Your task to perform on an android device: Is it going to rain today? Image 0: 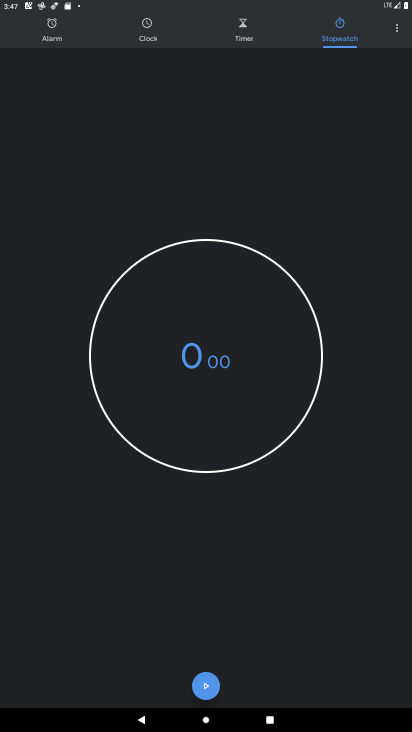
Step 0: press home button
Your task to perform on an android device: Is it going to rain today? Image 1: 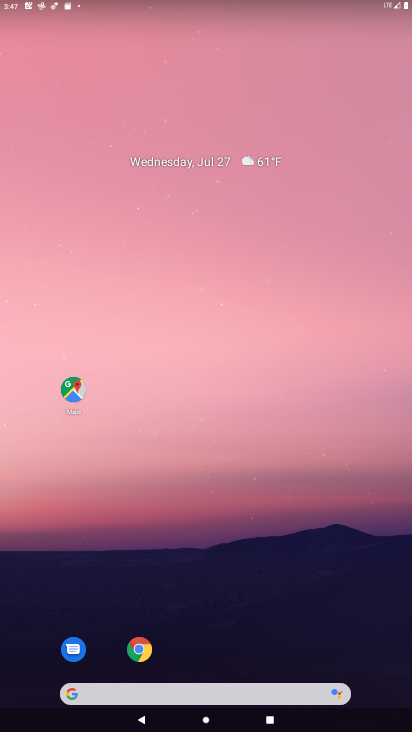
Step 1: drag from (200, 641) to (129, 80)
Your task to perform on an android device: Is it going to rain today? Image 2: 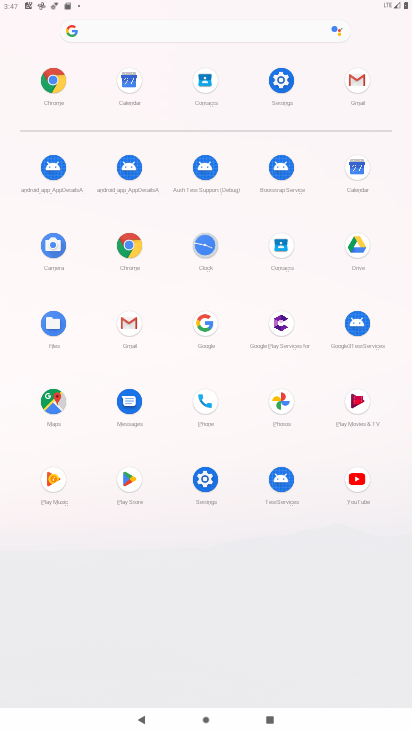
Step 2: click (197, 321)
Your task to perform on an android device: Is it going to rain today? Image 3: 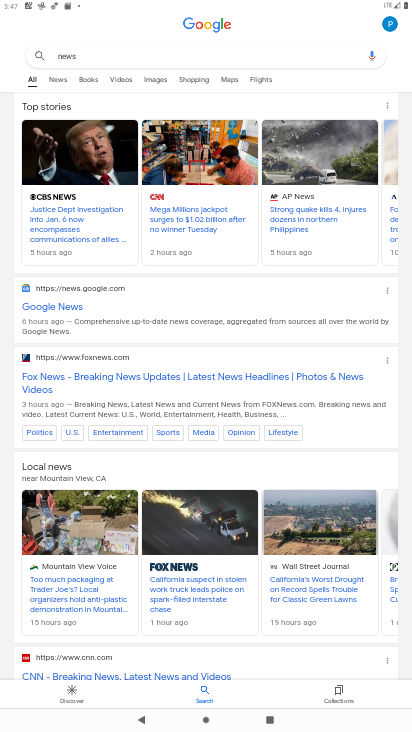
Step 3: click (162, 54)
Your task to perform on an android device: Is it going to rain today? Image 4: 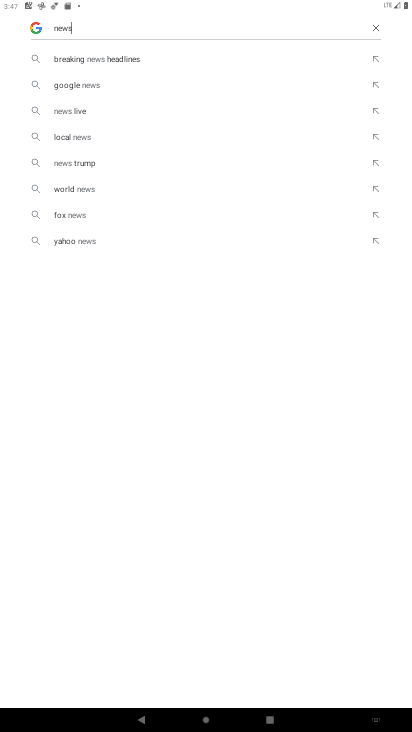
Step 4: click (376, 27)
Your task to perform on an android device: Is it going to rain today? Image 5: 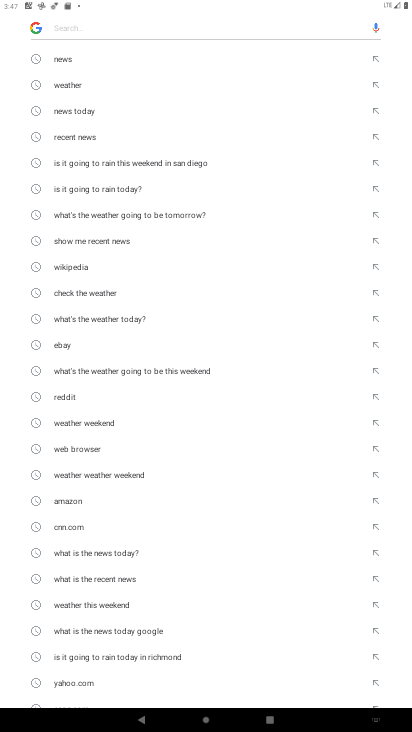
Step 5: click (233, 39)
Your task to perform on an android device: Is it going to rain today? Image 6: 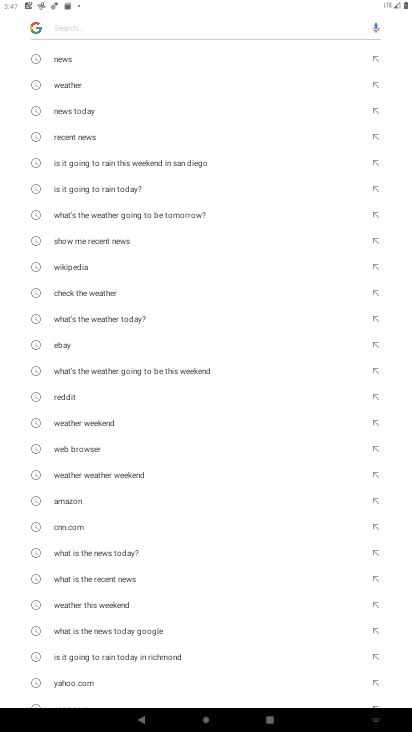
Step 6: type "wheather"
Your task to perform on an android device: Is it going to rain today? Image 7: 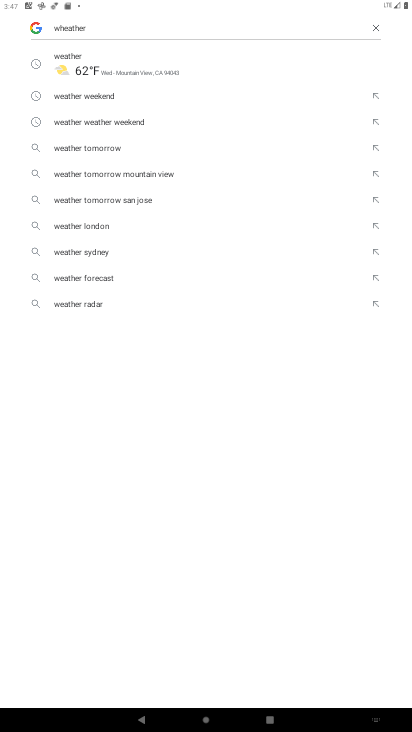
Step 7: click (86, 61)
Your task to perform on an android device: Is it going to rain today? Image 8: 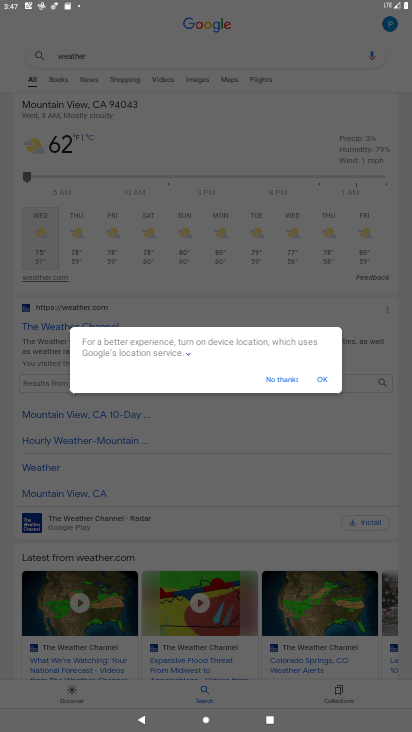
Step 8: click (299, 380)
Your task to perform on an android device: Is it going to rain today? Image 9: 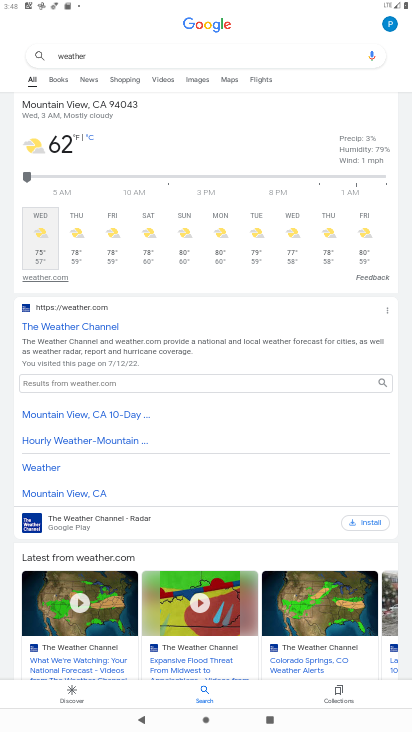
Step 9: task complete